Your task to perform on an android device: What is the news today? Image 0: 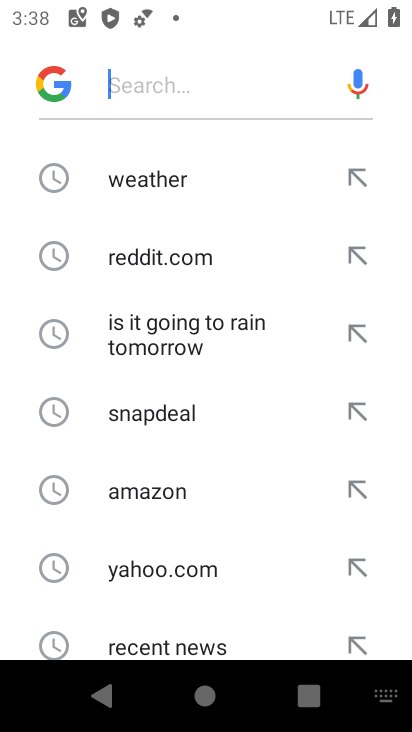
Step 0: type "news"
Your task to perform on an android device: What is the news today? Image 1: 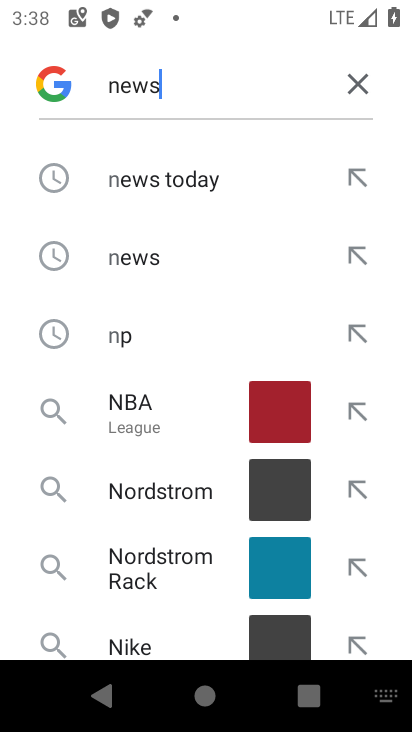
Step 1: type ""
Your task to perform on an android device: What is the news today? Image 2: 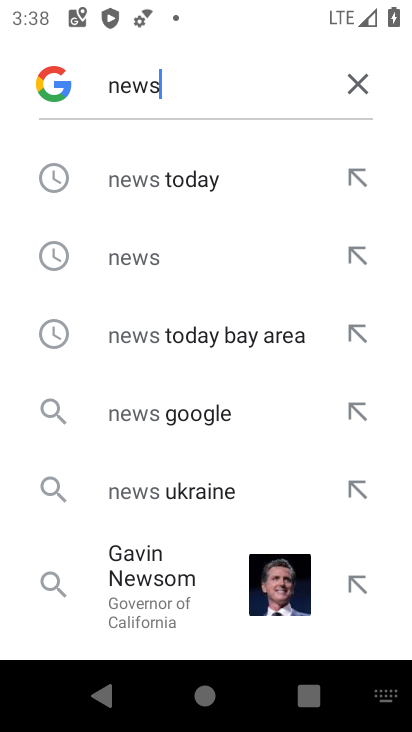
Step 2: click (191, 190)
Your task to perform on an android device: What is the news today? Image 3: 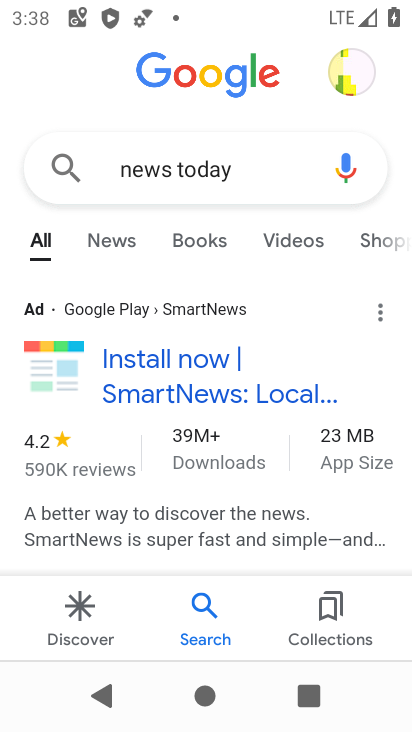
Step 3: drag from (179, 529) to (222, 251)
Your task to perform on an android device: What is the news today? Image 4: 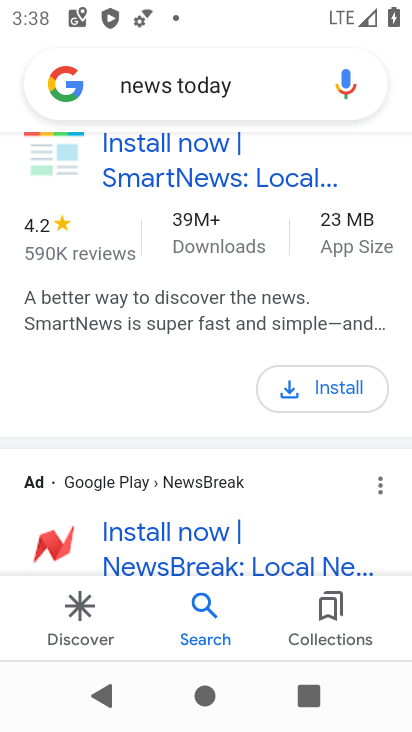
Step 4: drag from (185, 438) to (242, 229)
Your task to perform on an android device: What is the news today? Image 5: 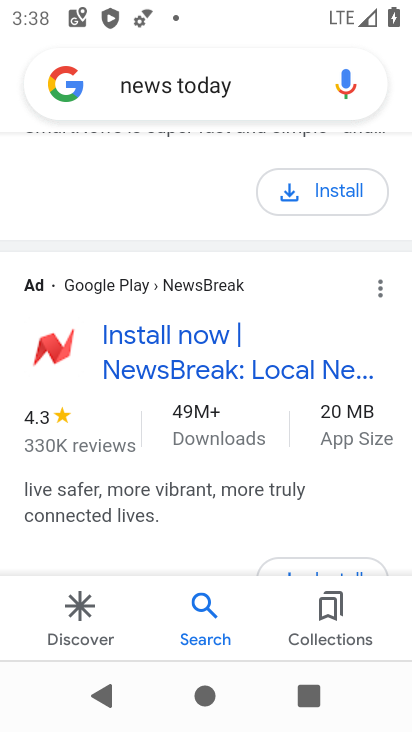
Step 5: drag from (192, 461) to (295, 193)
Your task to perform on an android device: What is the news today? Image 6: 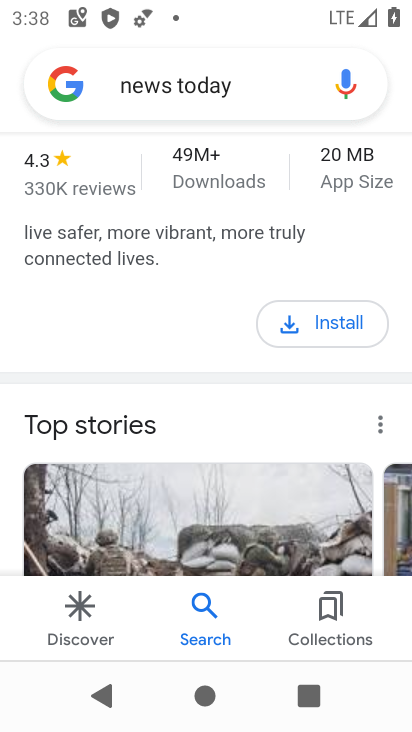
Step 6: drag from (214, 496) to (265, 242)
Your task to perform on an android device: What is the news today? Image 7: 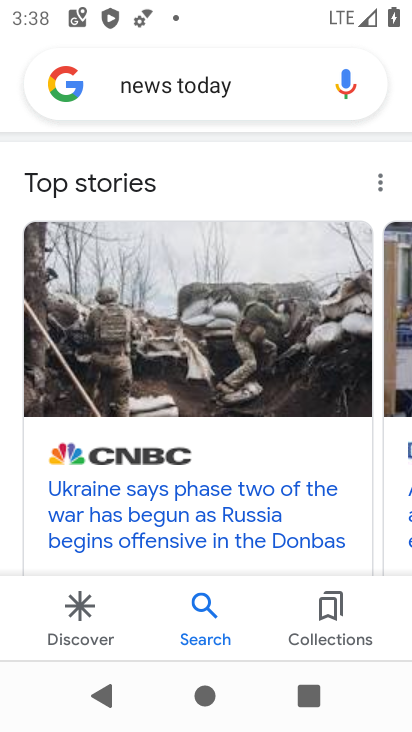
Step 7: click (234, 367)
Your task to perform on an android device: What is the news today? Image 8: 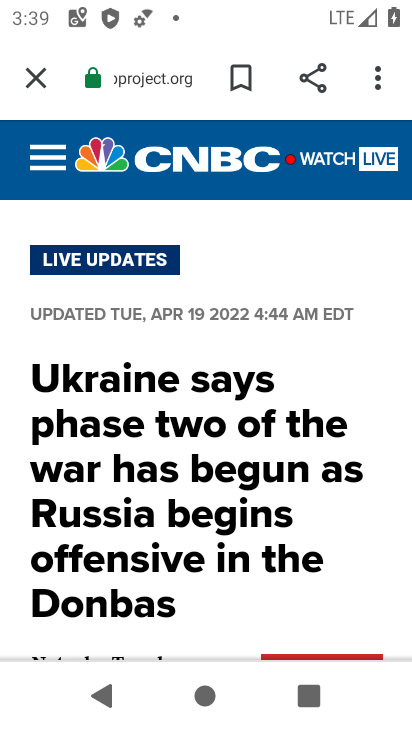
Step 8: task complete